Your task to perform on an android device: manage bookmarks in the chrome app Image 0: 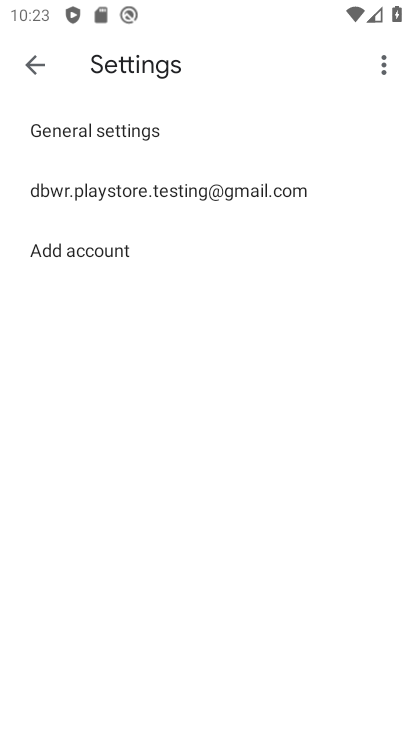
Step 0: press home button
Your task to perform on an android device: manage bookmarks in the chrome app Image 1: 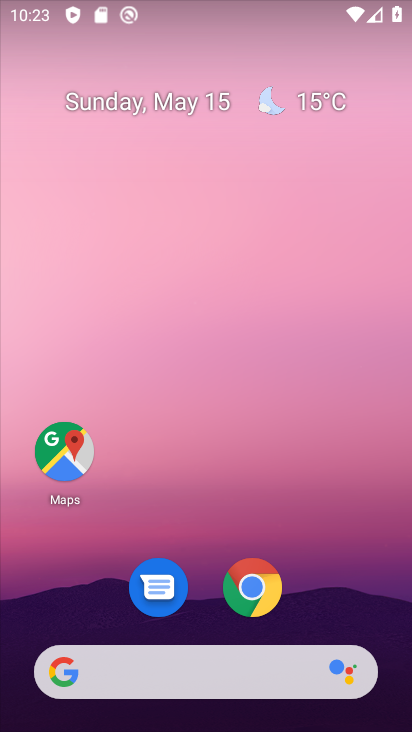
Step 1: click (256, 597)
Your task to perform on an android device: manage bookmarks in the chrome app Image 2: 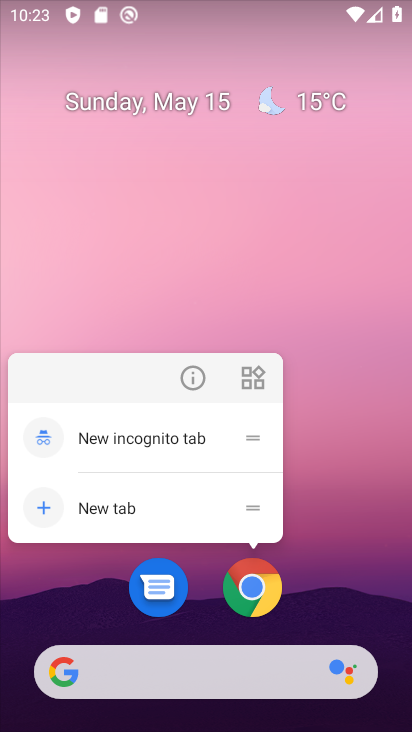
Step 2: click (247, 588)
Your task to perform on an android device: manage bookmarks in the chrome app Image 3: 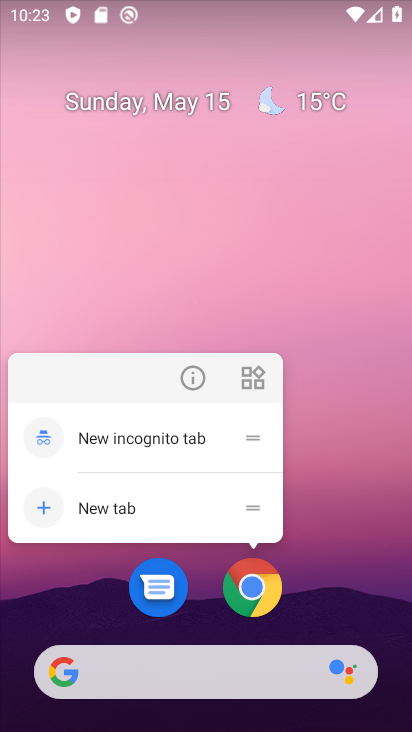
Step 3: click (256, 601)
Your task to perform on an android device: manage bookmarks in the chrome app Image 4: 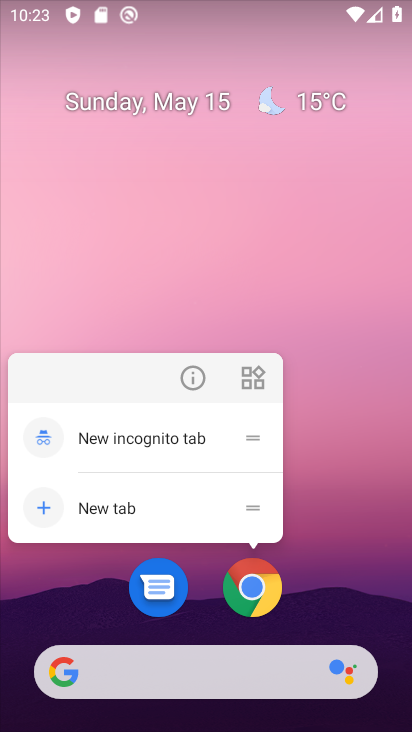
Step 4: click (254, 589)
Your task to perform on an android device: manage bookmarks in the chrome app Image 5: 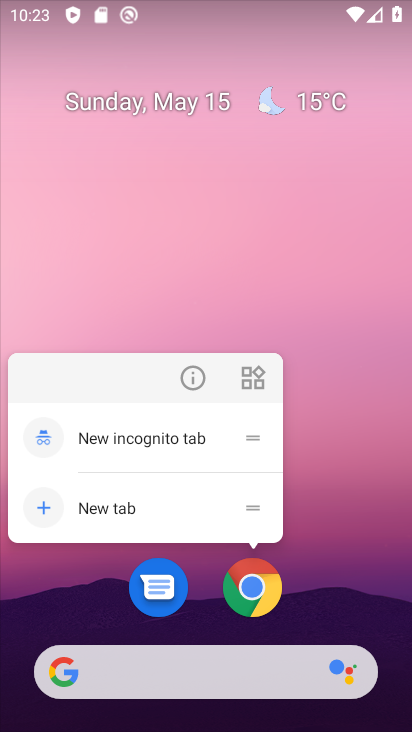
Step 5: click (251, 599)
Your task to perform on an android device: manage bookmarks in the chrome app Image 6: 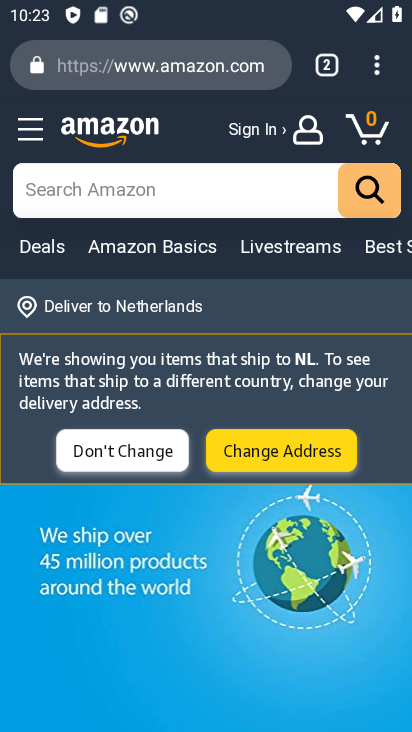
Step 6: drag from (388, 72) to (311, 329)
Your task to perform on an android device: manage bookmarks in the chrome app Image 7: 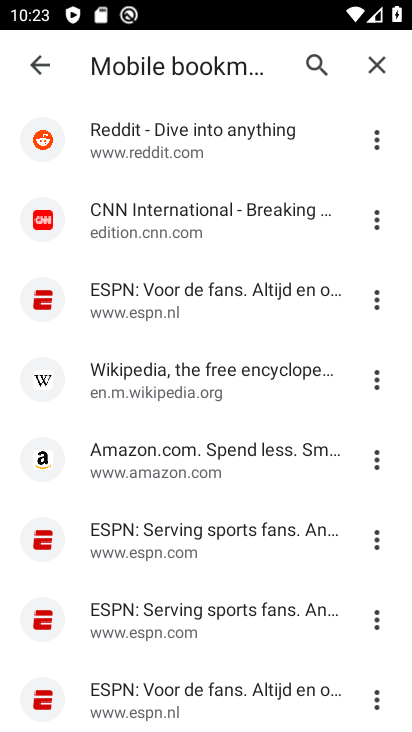
Step 7: click (247, 131)
Your task to perform on an android device: manage bookmarks in the chrome app Image 8: 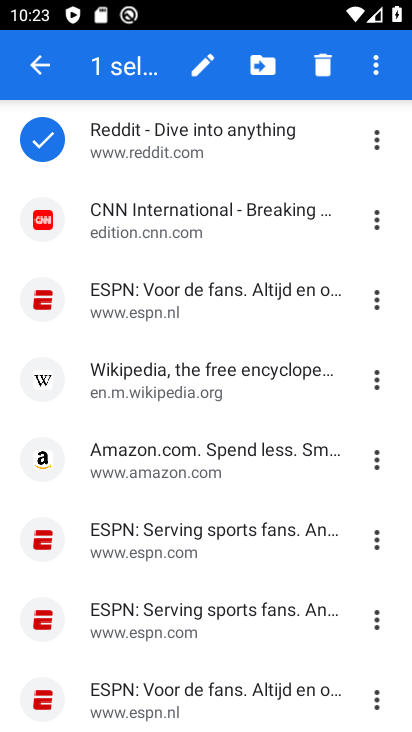
Step 8: click (236, 220)
Your task to perform on an android device: manage bookmarks in the chrome app Image 9: 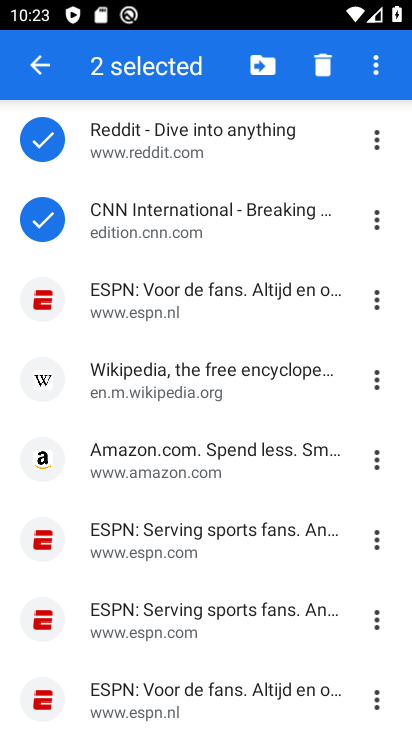
Step 9: click (209, 305)
Your task to perform on an android device: manage bookmarks in the chrome app Image 10: 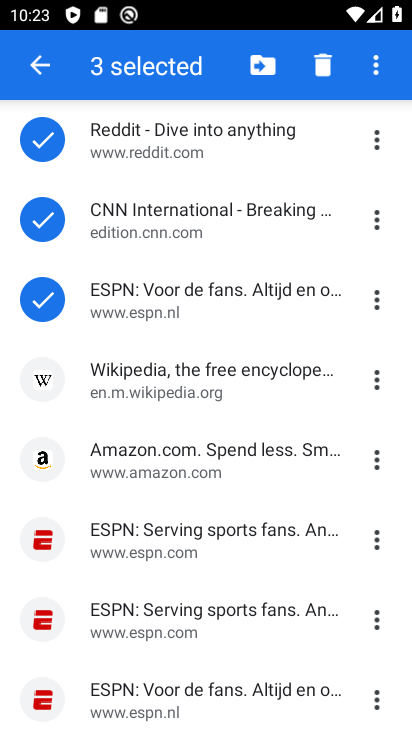
Step 10: click (192, 406)
Your task to perform on an android device: manage bookmarks in the chrome app Image 11: 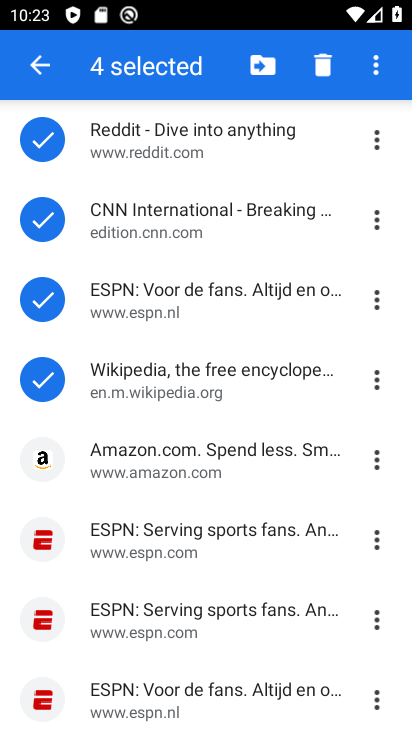
Step 11: click (182, 460)
Your task to perform on an android device: manage bookmarks in the chrome app Image 12: 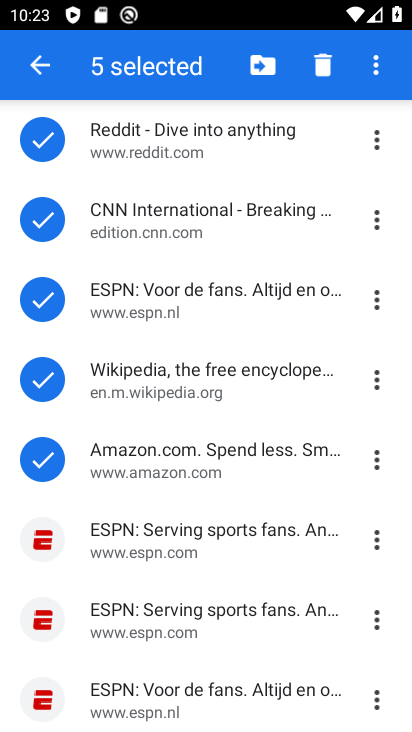
Step 12: click (171, 553)
Your task to perform on an android device: manage bookmarks in the chrome app Image 13: 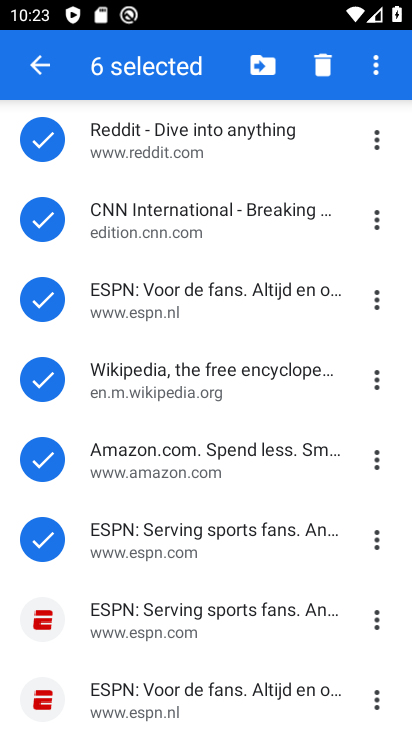
Step 13: click (163, 606)
Your task to perform on an android device: manage bookmarks in the chrome app Image 14: 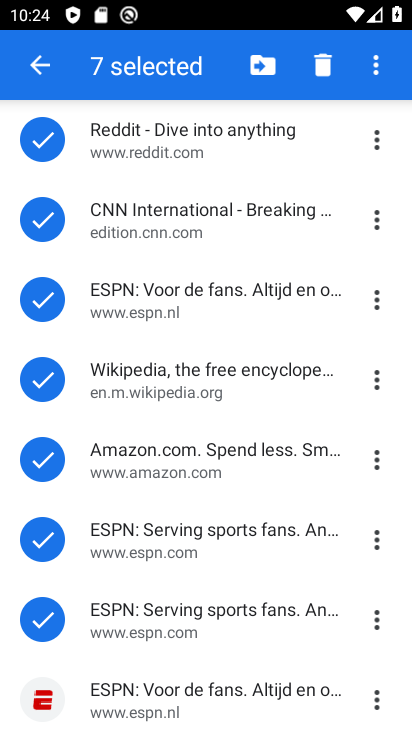
Step 14: click (163, 710)
Your task to perform on an android device: manage bookmarks in the chrome app Image 15: 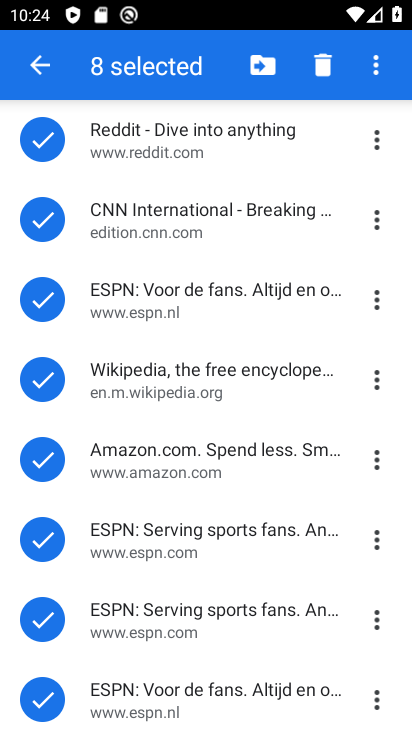
Step 15: drag from (165, 704) to (311, 119)
Your task to perform on an android device: manage bookmarks in the chrome app Image 16: 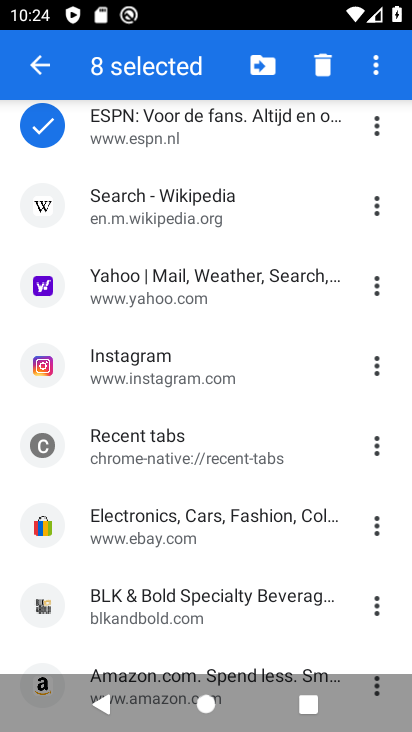
Step 16: click (204, 215)
Your task to perform on an android device: manage bookmarks in the chrome app Image 17: 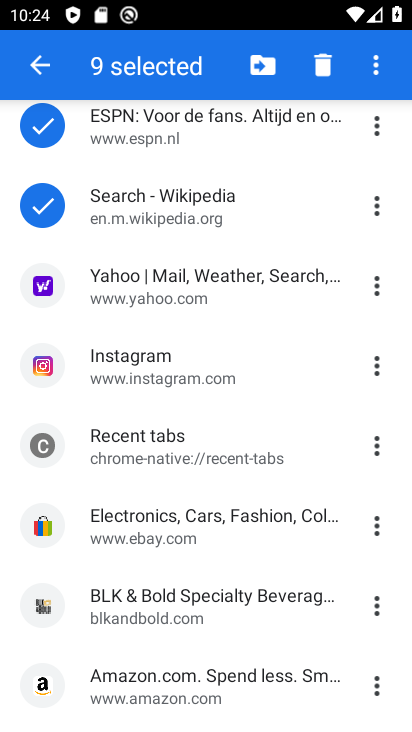
Step 17: click (202, 278)
Your task to perform on an android device: manage bookmarks in the chrome app Image 18: 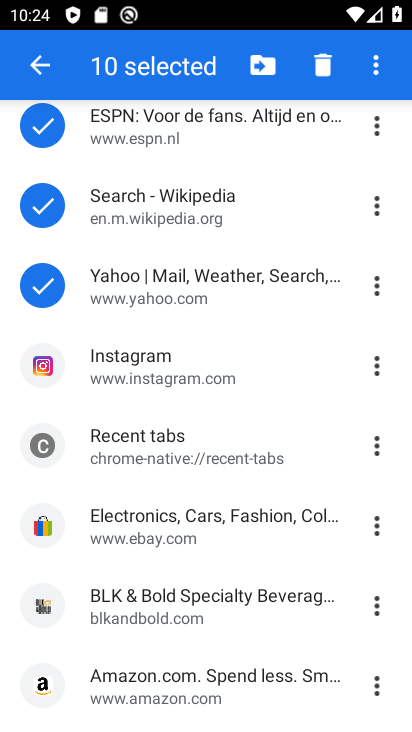
Step 18: click (194, 335)
Your task to perform on an android device: manage bookmarks in the chrome app Image 19: 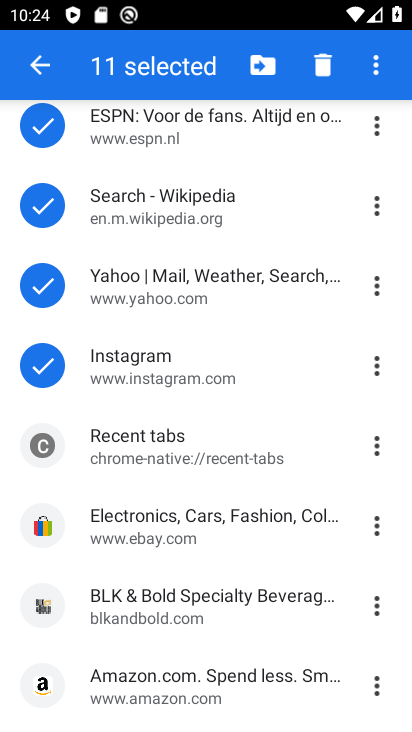
Step 19: click (198, 473)
Your task to perform on an android device: manage bookmarks in the chrome app Image 20: 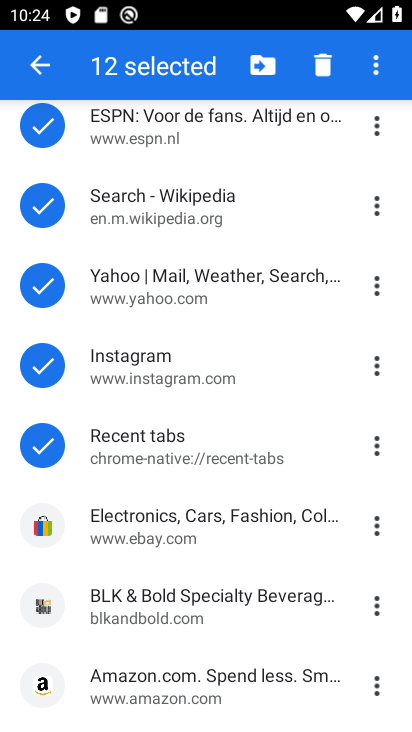
Step 20: click (158, 529)
Your task to perform on an android device: manage bookmarks in the chrome app Image 21: 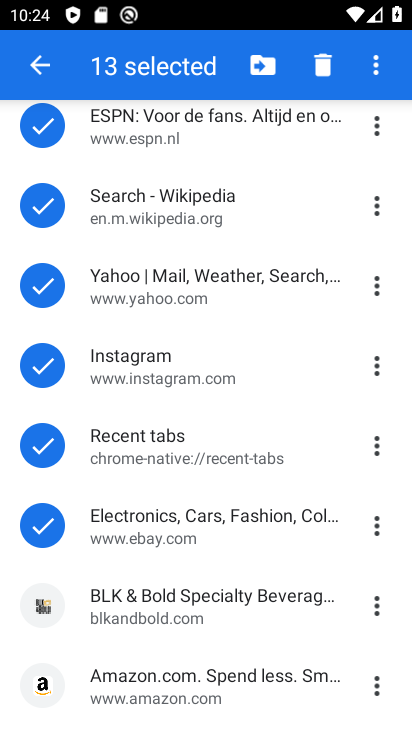
Step 21: click (158, 607)
Your task to perform on an android device: manage bookmarks in the chrome app Image 22: 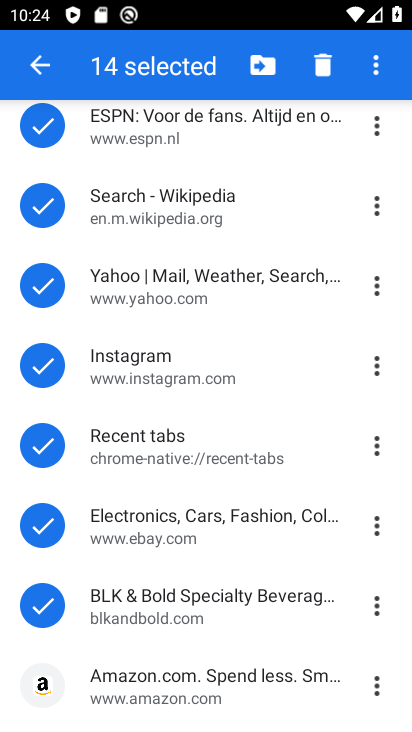
Step 22: click (151, 679)
Your task to perform on an android device: manage bookmarks in the chrome app Image 23: 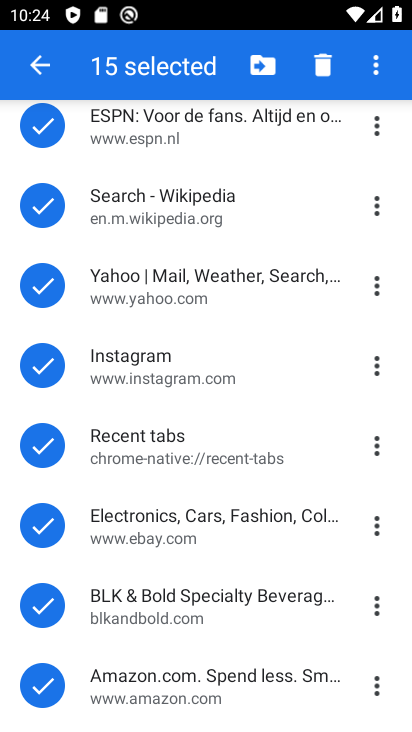
Step 23: drag from (157, 681) to (345, 122)
Your task to perform on an android device: manage bookmarks in the chrome app Image 24: 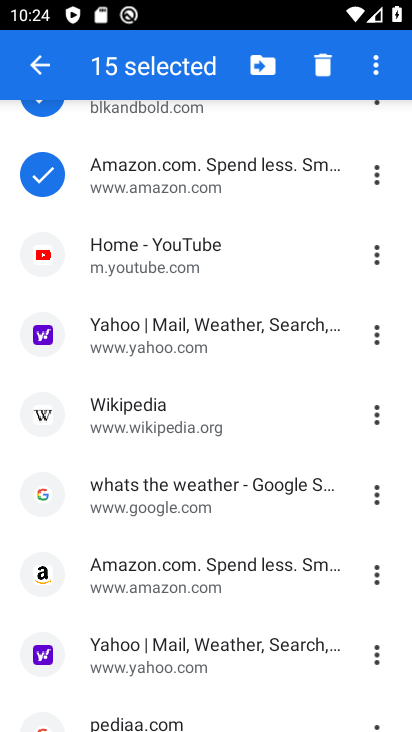
Step 24: click (169, 254)
Your task to perform on an android device: manage bookmarks in the chrome app Image 25: 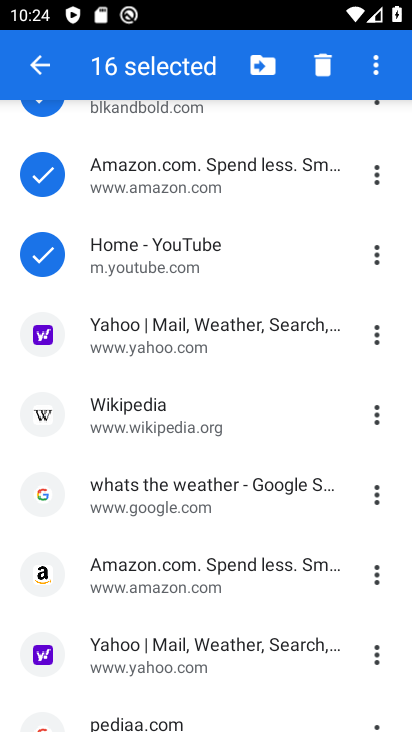
Step 25: click (174, 328)
Your task to perform on an android device: manage bookmarks in the chrome app Image 26: 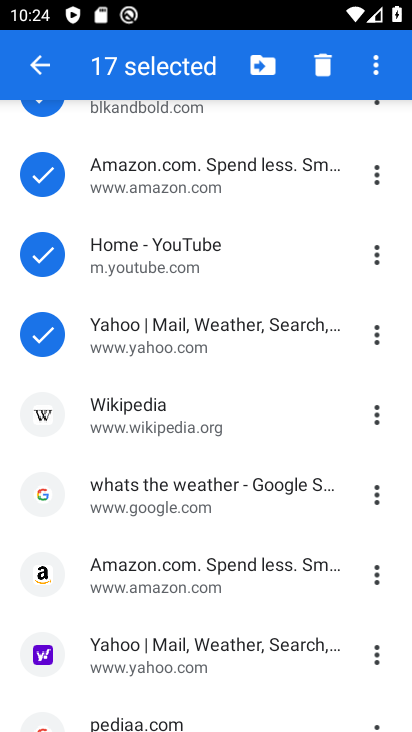
Step 26: click (129, 419)
Your task to perform on an android device: manage bookmarks in the chrome app Image 27: 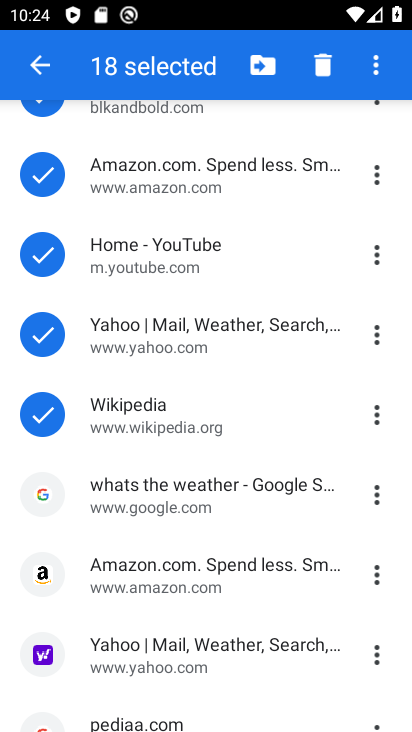
Step 27: click (125, 492)
Your task to perform on an android device: manage bookmarks in the chrome app Image 28: 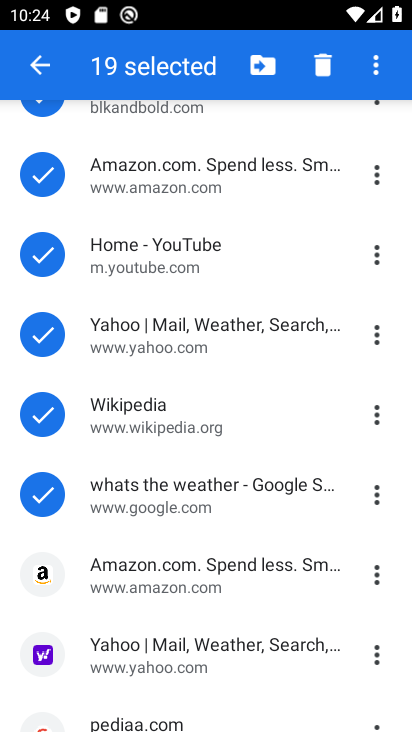
Step 28: click (113, 571)
Your task to perform on an android device: manage bookmarks in the chrome app Image 29: 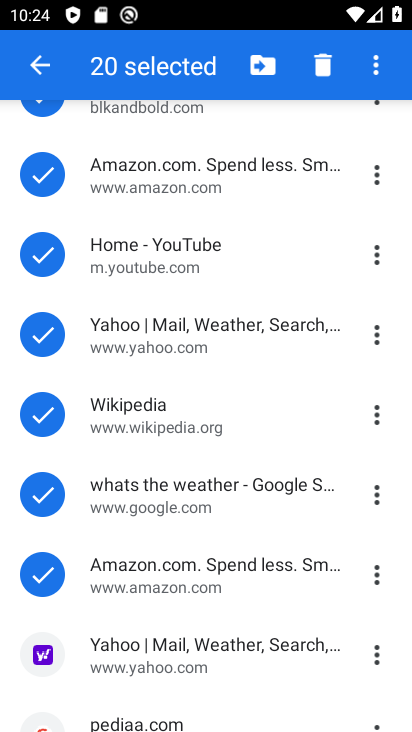
Step 29: click (99, 642)
Your task to perform on an android device: manage bookmarks in the chrome app Image 30: 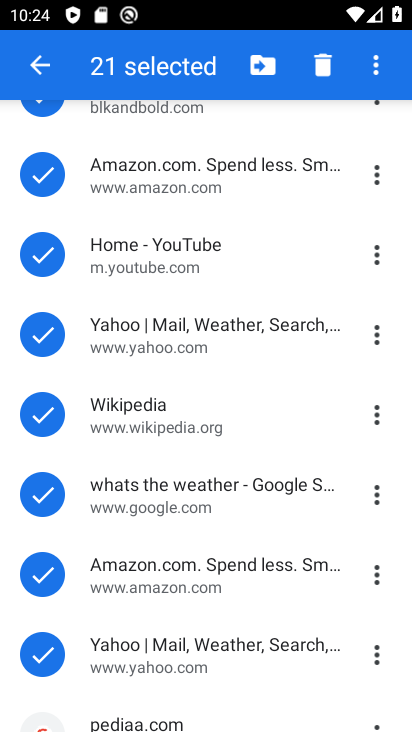
Step 30: drag from (131, 669) to (272, 207)
Your task to perform on an android device: manage bookmarks in the chrome app Image 31: 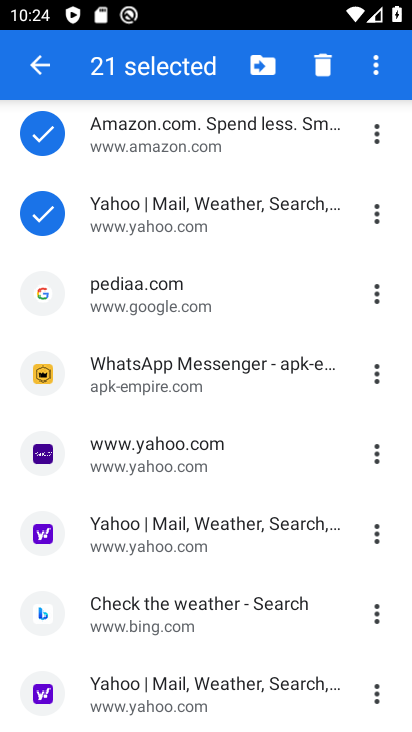
Step 31: click (169, 323)
Your task to perform on an android device: manage bookmarks in the chrome app Image 32: 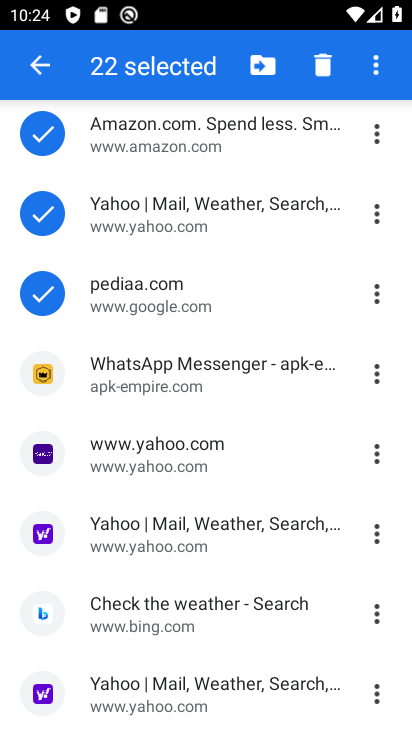
Step 32: click (156, 382)
Your task to perform on an android device: manage bookmarks in the chrome app Image 33: 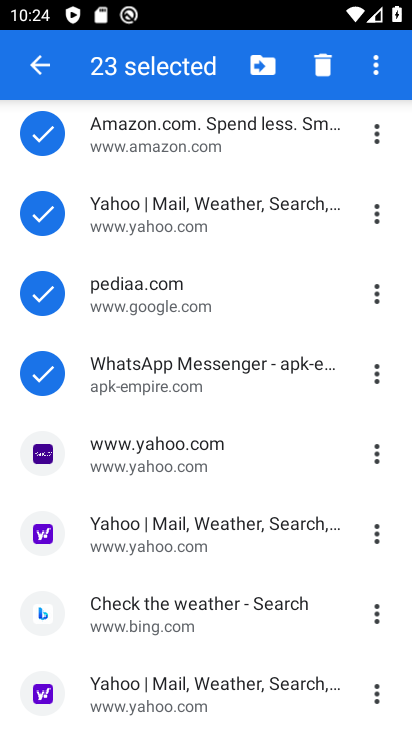
Step 33: click (146, 469)
Your task to perform on an android device: manage bookmarks in the chrome app Image 34: 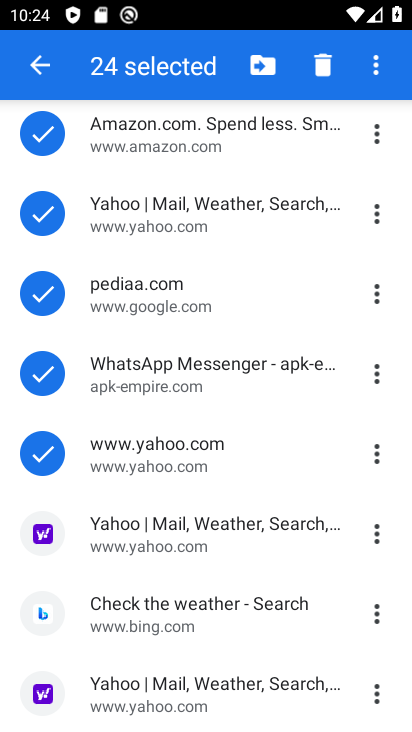
Step 34: click (142, 545)
Your task to perform on an android device: manage bookmarks in the chrome app Image 35: 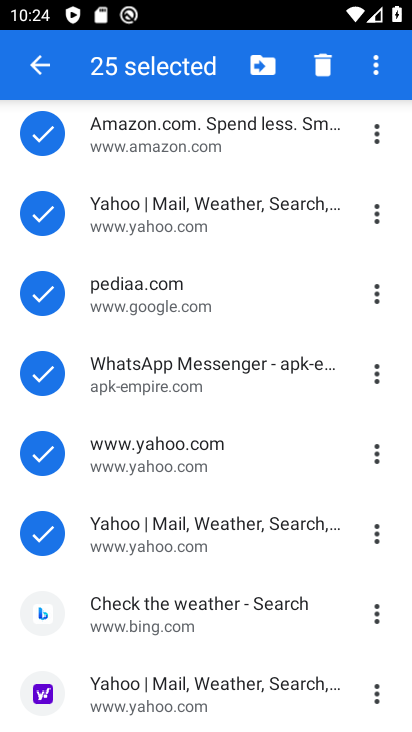
Step 35: click (142, 621)
Your task to perform on an android device: manage bookmarks in the chrome app Image 36: 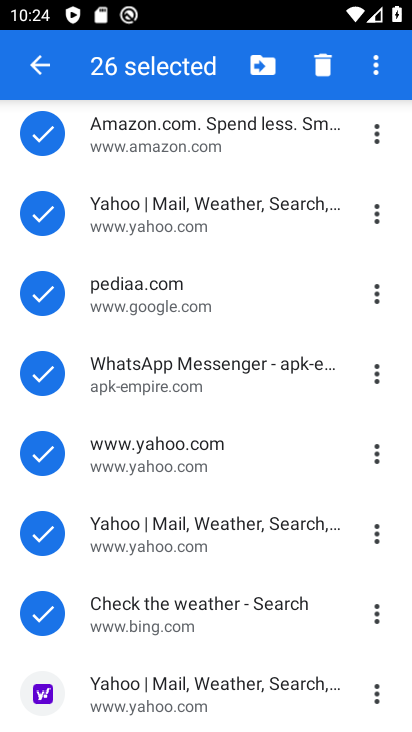
Step 36: click (130, 688)
Your task to perform on an android device: manage bookmarks in the chrome app Image 37: 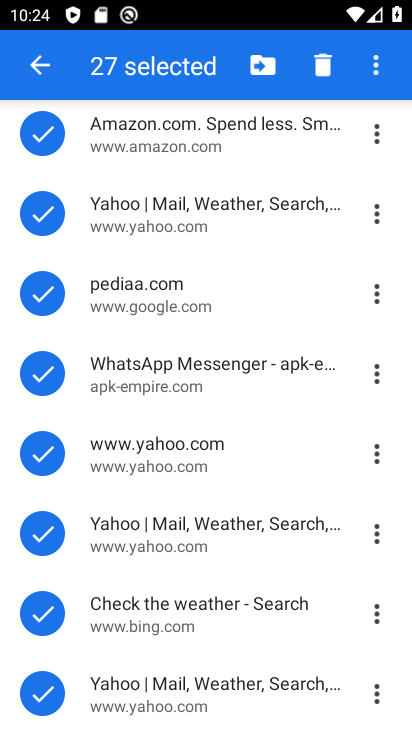
Step 37: drag from (129, 681) to (266, 63)
Your task to perform on an android device: manage bookmarks in the chrome app Image 38: 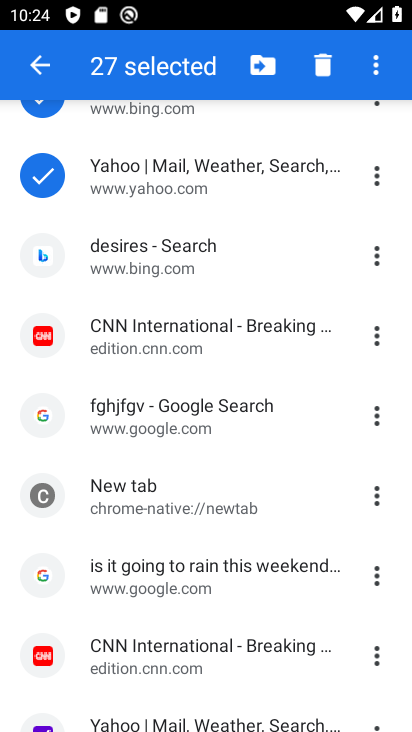
Step 38: click (198, 234)
Your task to perform on an android device: manage bookmarks in the chrome app Image 39: 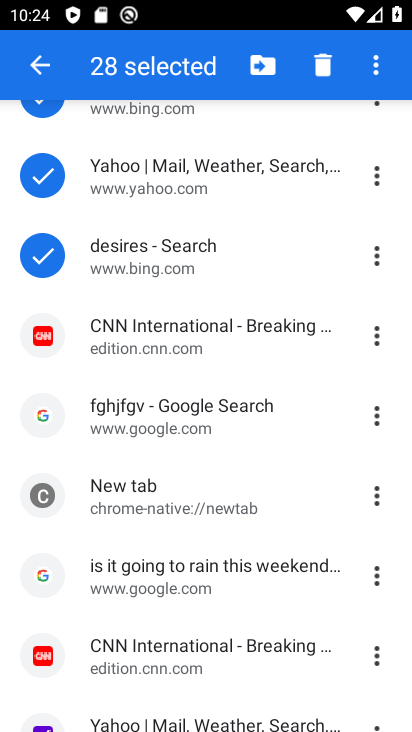
Step 39: click (196, 338)
Your task to perform on an android device: manage bookmarks in the chrome app Image 40: 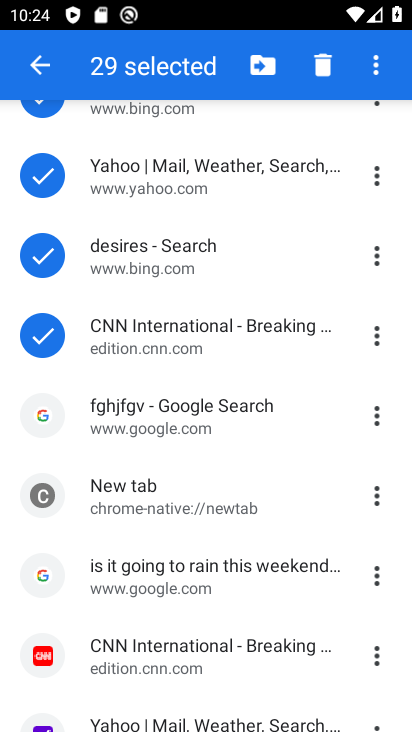
Step 40: click (119, 435)
Your task to perform on an android device: manage bookmarks in the chrome app Image 41: 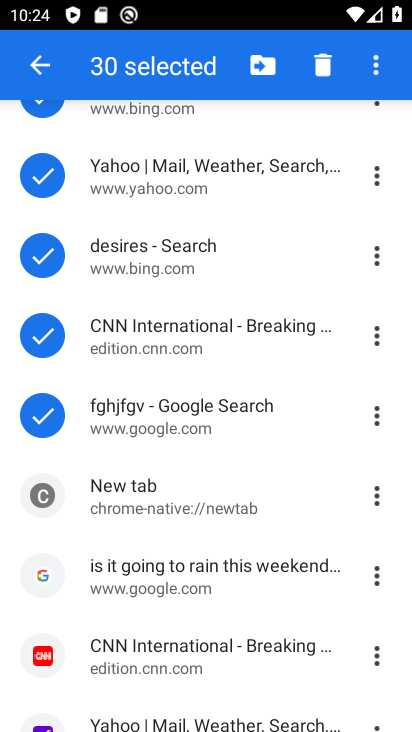
Step 41: click (103, 516)
Your task to perform on an android device: manage bookmarks in the chrome app Image 42: 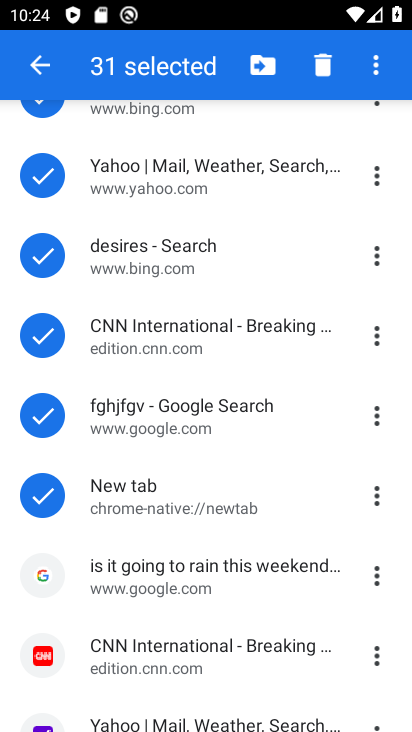
Step 42: click (110, 603)
Your task to perform on an android device: manage bookmarks in the chrome app Image 43: 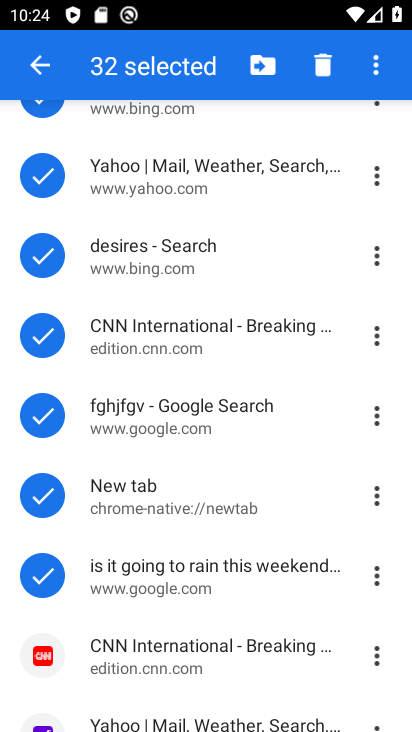
Step 43: click (103, 668)
Your task to perform on an android device: manage bookmarks in the chrome app Image 44: 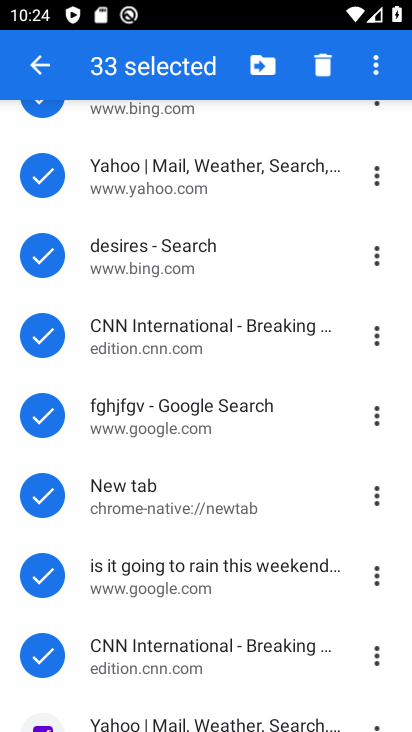
Step 44: drag from (104, 672) to (303, 178)
Your task to perform on an android device: manage bookmarks in the chrome app Image 45: 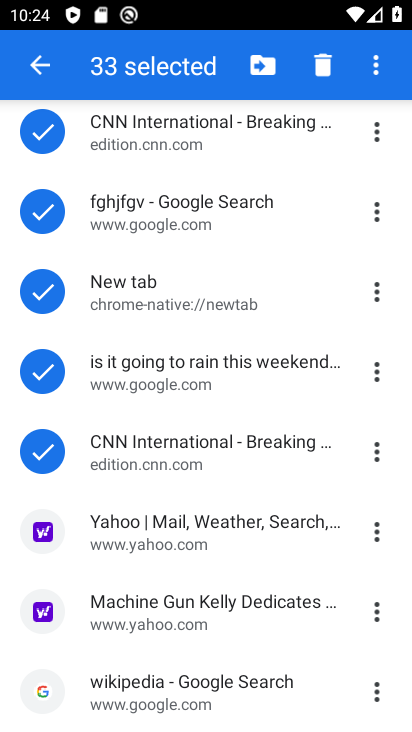
Step 45: click (158, 522)
Your task to perform on an android device: manage bookmarks in the chrome app Image 46: 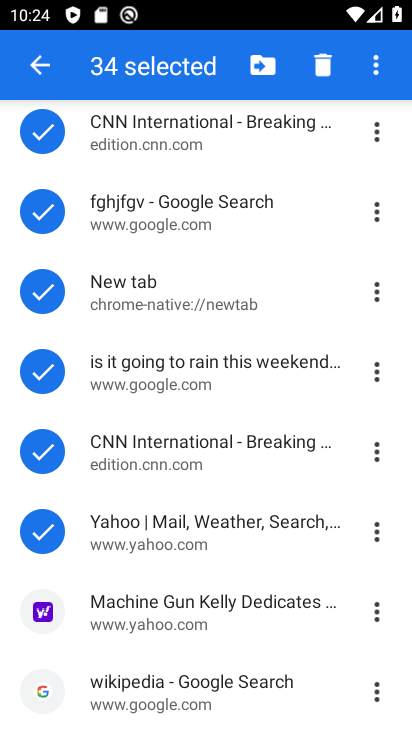
Step 46: click (145, 593)
Your task to perform on an android device: manage bookmarks in the chrome app Image 47: 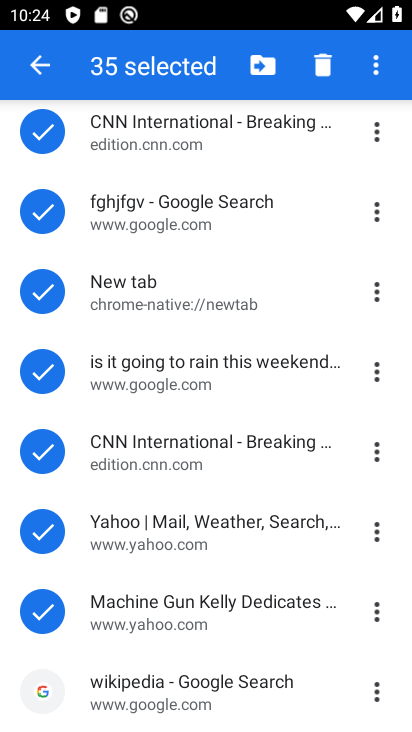
Step 47: click (176, 694)
Your task to perform on an android device: manage bookmarks in the chrome app Image 48: 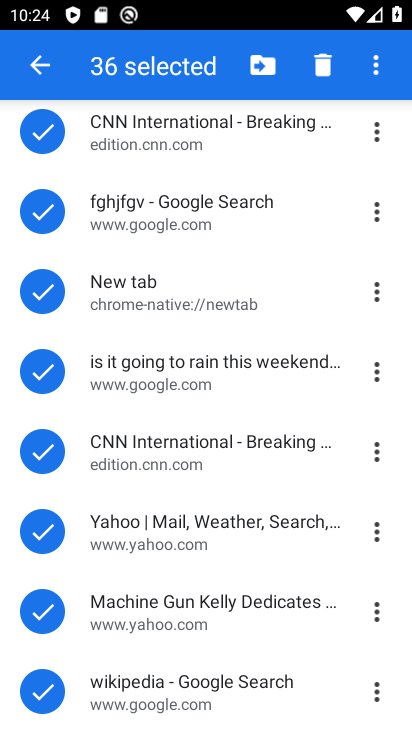
Step 48: click (265, 73)
Your task to perform on an android device: manage bookmarks in the chrome app Image 49: 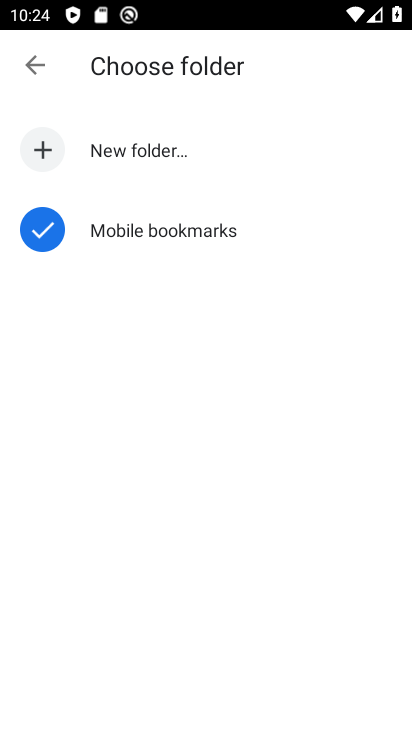
Step 49: click (189, 150)
Your task to perform on an android device: manage bookmarks in the chrome app Image 50: 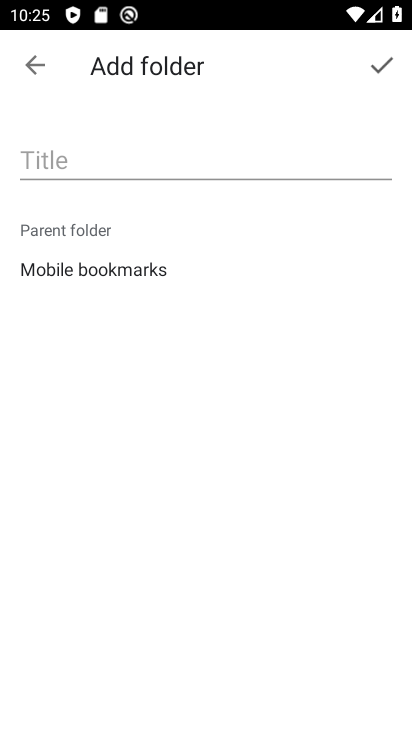
Step 50: click (185, 154)
Your task to perform on an android device: manage bookmarks in the chrome app Image 51: 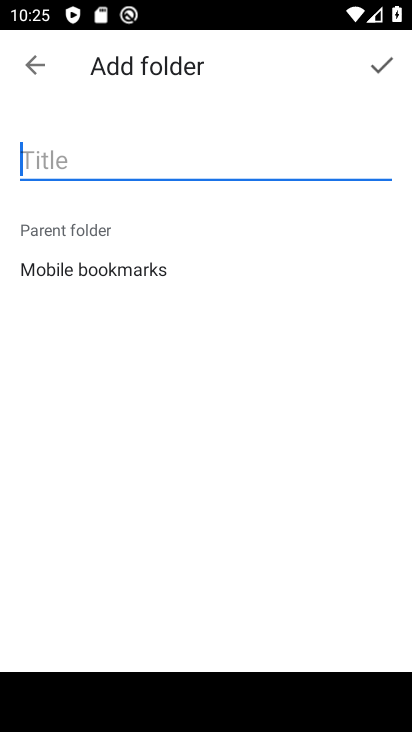
Step 51: type "xxxxxxx"
Your task to perform on an android device: manage bookmarks in the chrome app Image 52: 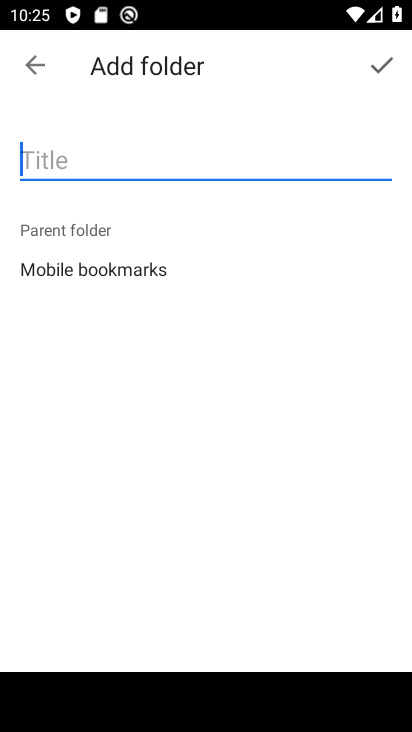
Step 52: click (377, 67)
Your task to perform on an android device: manage bookmarks in the chrome app Image 53: 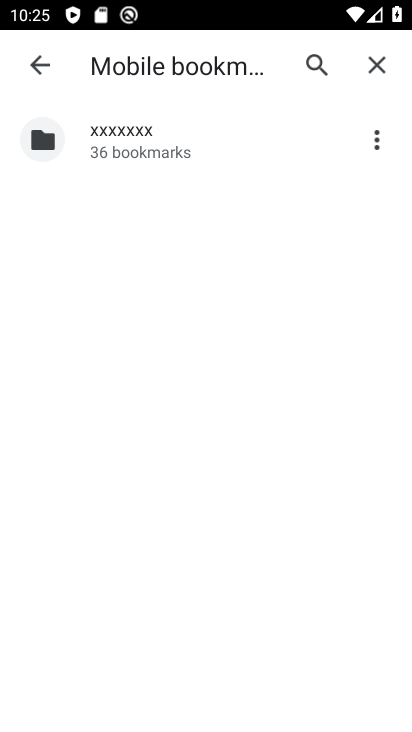
Step 53: task complete